Your task to perform on an android device: clear history in the chrome app Image 0: 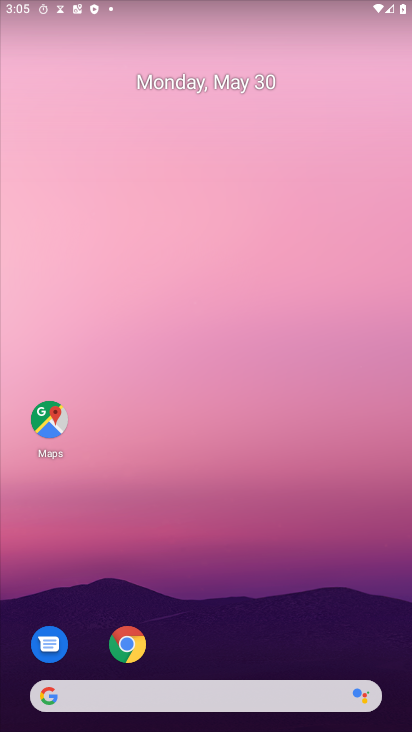
Step 0: press home button
Your task to perform on an android device: clear history in the chrome app Image 1: 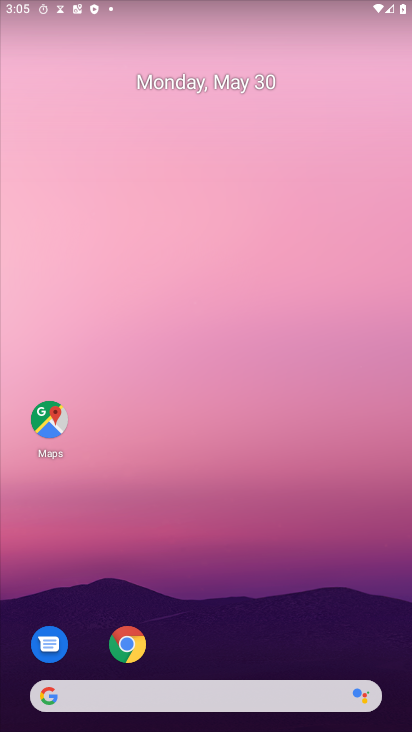
Step 1: click (114, 649)
Your task to perform on an android device: clear history in the chrome app Image 2: 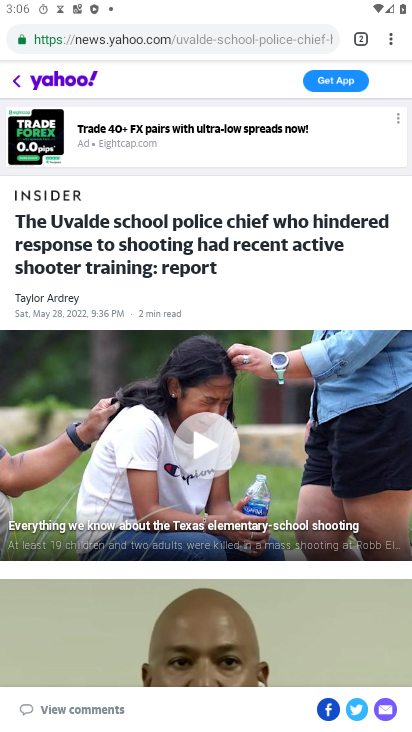
Step 2: press home button
Your task to perform on an android device: clear history in the chrome app Image 3: 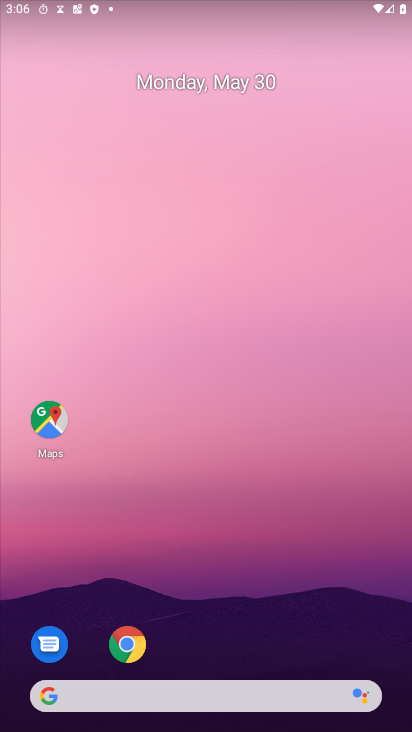
Step 3: click (132, 650)
Your task to perform on an android device: clear history in the chrome app Image 4: 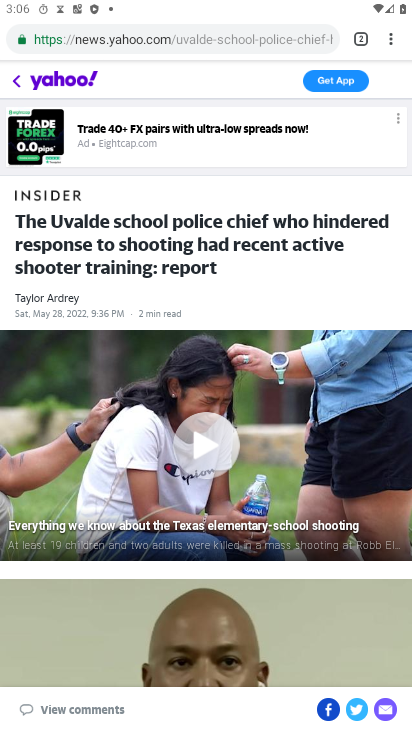
Step 4: click (395, 46)
Your task to perform on an android device: clear history in the chrome app Image 5: 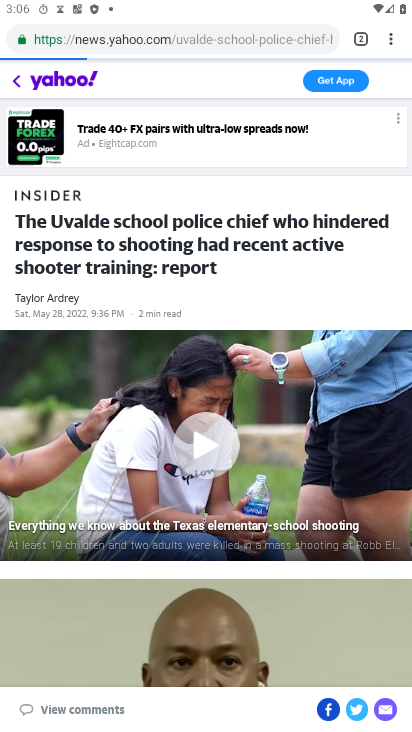
Step 5: drag from (395, 46) to (258, 224)
Your task to perform on an android device: clear history in the chrome app Image 6: 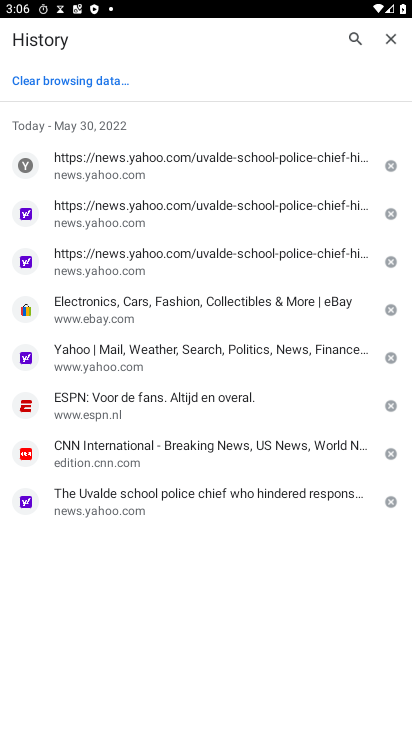
Step 6: click (59, 76)
Your task to perform on an android device: clear history in the chrome app Image 7: 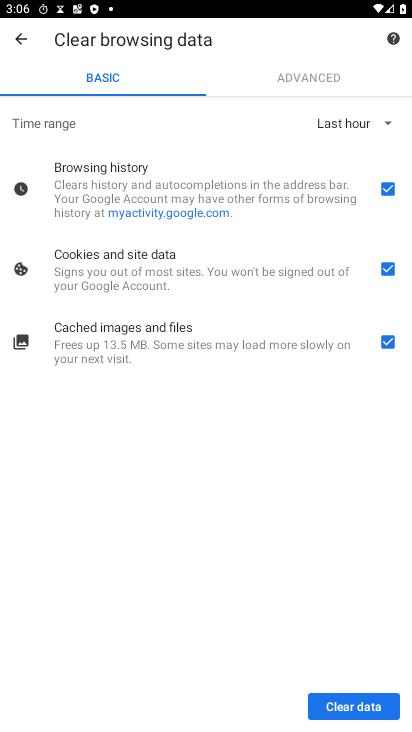
Step 7: click (385, 266)
Your task to perform on an android device: clear history in the chrome app Image 8: 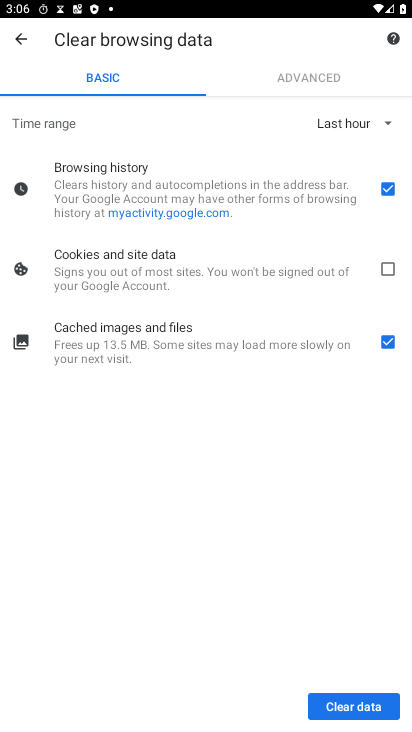
Step 8: click (388, 343)
Your task to perform on an android device: clear history in the chrome app Image 9: 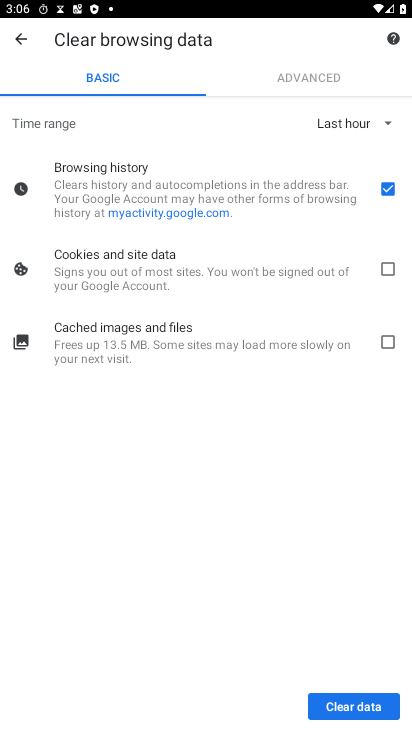
Step 9: click (351, 712)
Your task to perform on an android device: clear history in the chrome app Image 10: 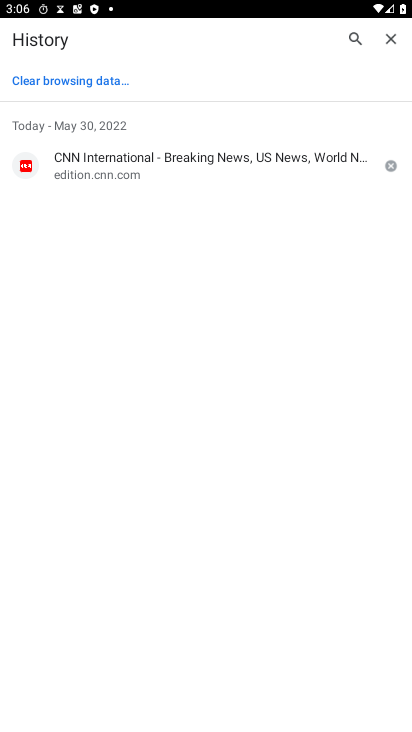
Step 10: click (63, 80)
Your task to perform on an android device: clear history in the chrome app Image 11: 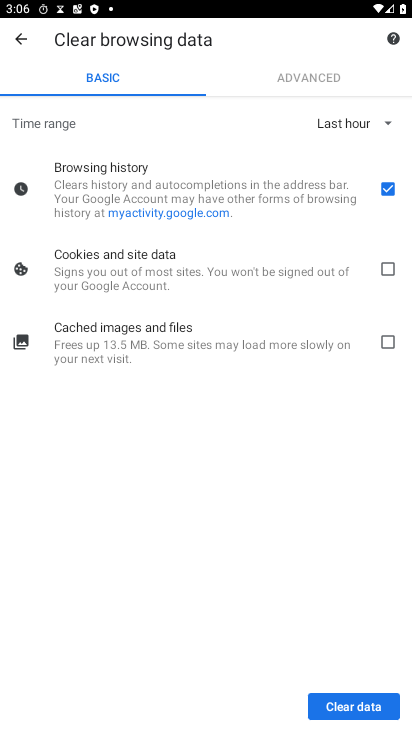
Step 11: click (338, 705)
Your task to perform on an android device: clear history in the chrome app Image 12: 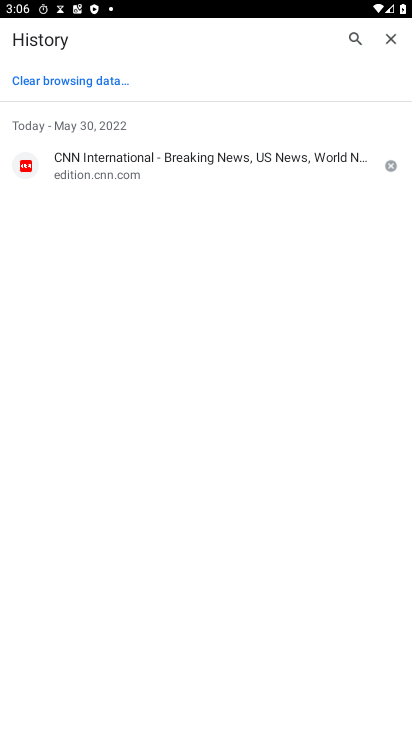
Step 12: click (67, 76)
Your task to perform on an android device: clear history in the chrome app Image 13: 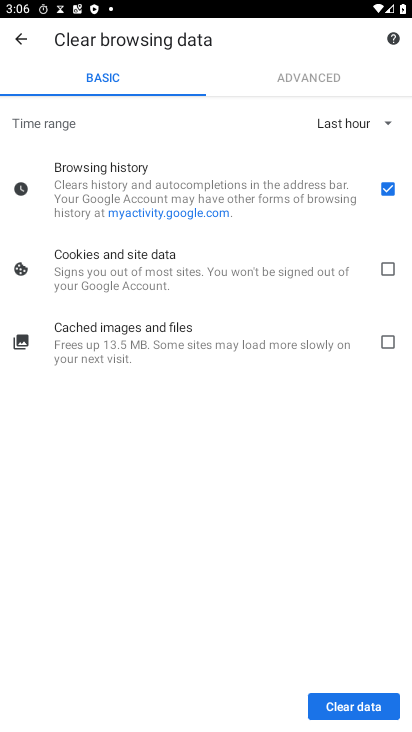
Step 13: click (359, 714)
Your task to perform on an android device: clear history in the chrome app Image 14: 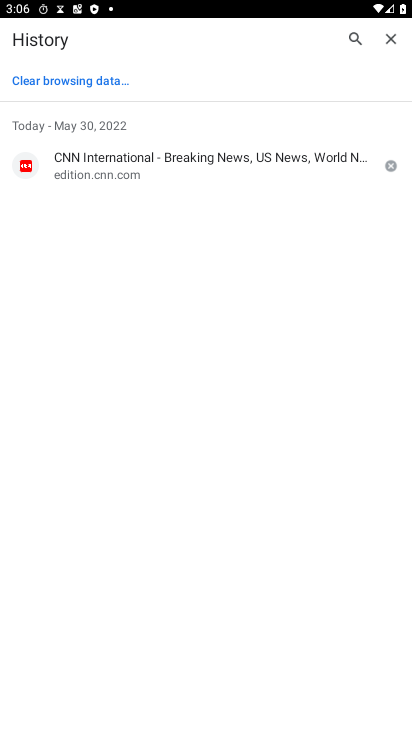
Step 14: task complete